Your task to perform on an android device: What is the recent news? Image 0: 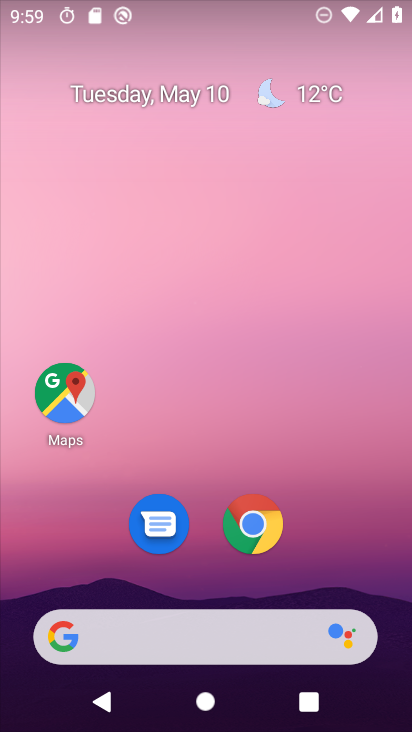
Step 0: click (195, 637)
Your task to perform on an android device: What is the recent news? Image 1: 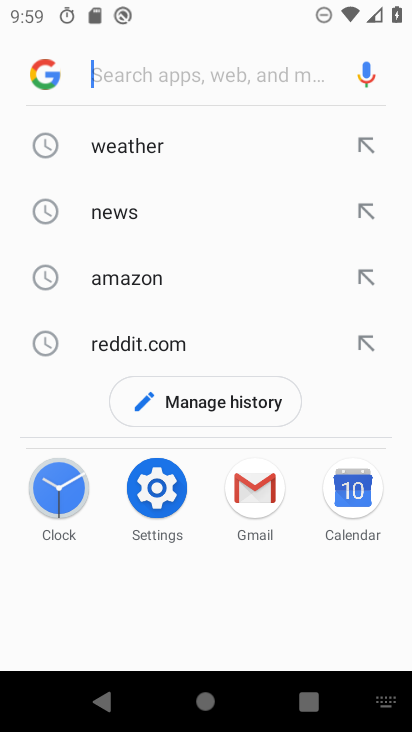
Step 1: click (85, 207)
Your task to perform on an android device: What is the recent news? Image 2: 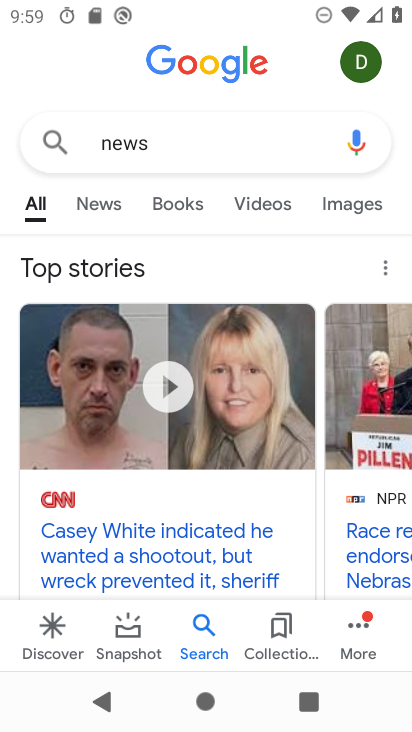
Step 2: click (98, 192)
Your task to perform on an android device: What is the recent news? Image 3: 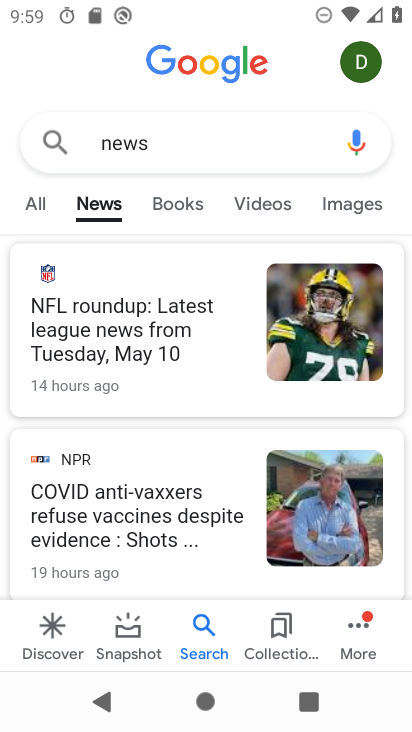
Step 3: task complete